Your task to perform on an android device: turn off notifications settings in the gmail app Image 0: 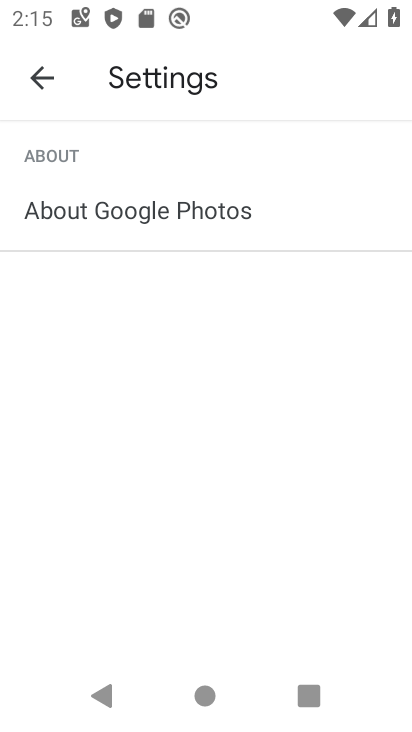
Step 0: press home button
Your task to perform on an android device: turn off notifications settings in the gmail app Image 1: 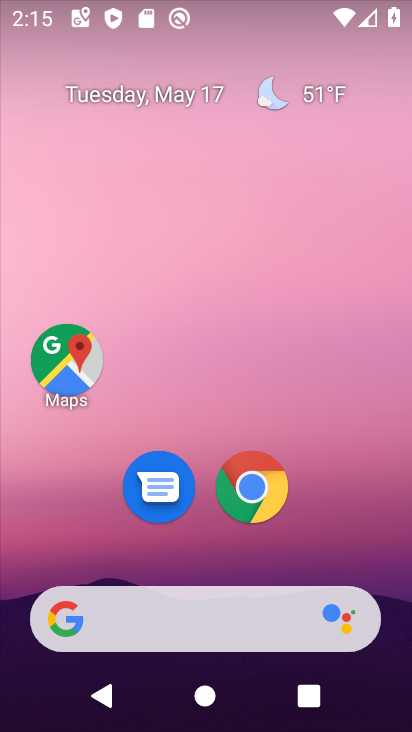
Step 1: drag from (125, 584) to (270, 199)
Your task to perform on an android device: turn off notifications settings in the gmail app Image 2: 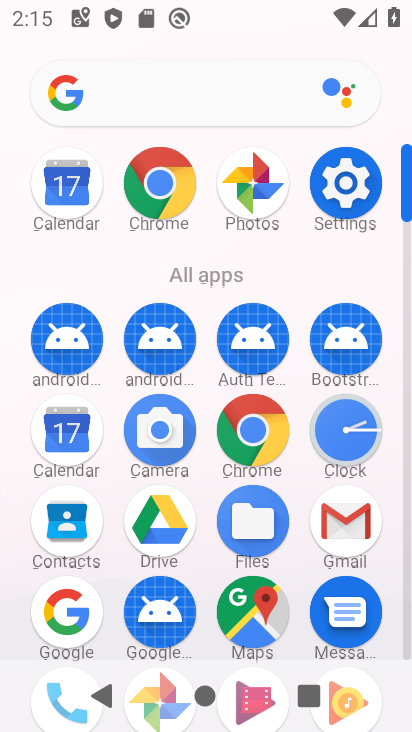
Step 2: drag from (166, 627) to (217, 416)
Your task to perform on an android device: turn off notifications settings in the gmail app Image 3: 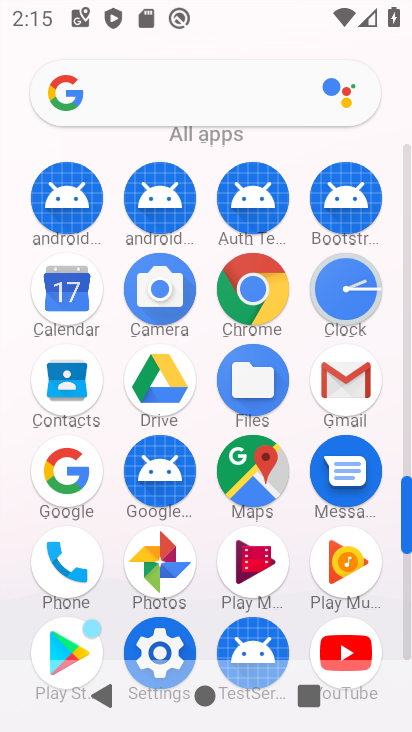
Step 3: click (321, 395)
Your task to perform on an android device: turn off notifications settings in the gmail app Image 4: 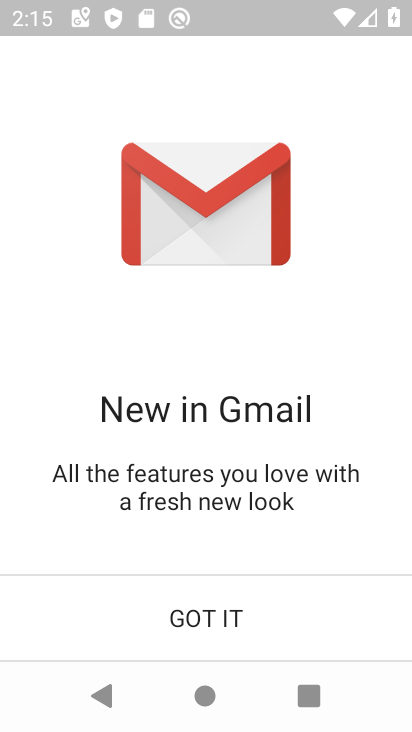
Step 4: click (233, 628)
Your task to perform on an android device: turn off notifications settings in the gmail app Image 5: 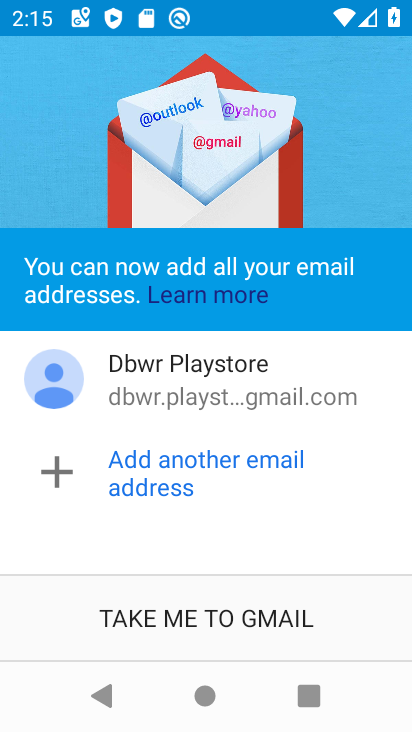
Step 5: click (216, 625)
Your task to perform on an android device: turn off notifications settings in the gmail app Image 6: 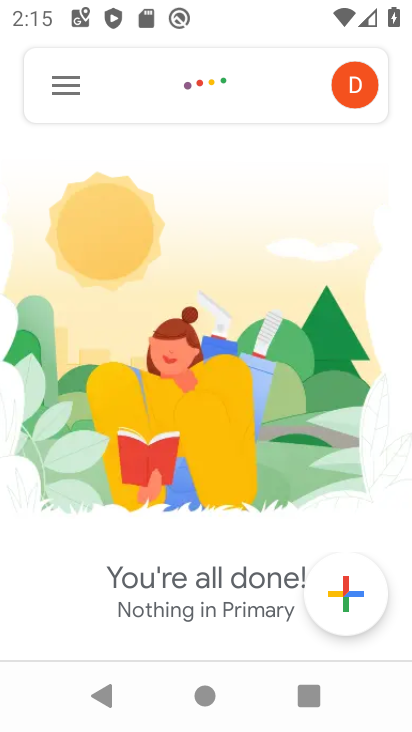
Step 6: click (76, 103)
Your task to perform on an android device: turn off notifications settings in the gmail app Image 7: 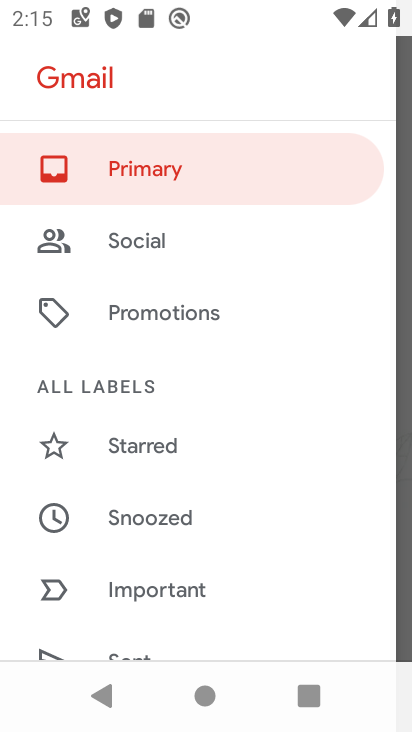
Step 7: drag from (155, 509) to (260, 120)
Your task to perform on an android device: turn off notifications settings in the gmail app Image 8: 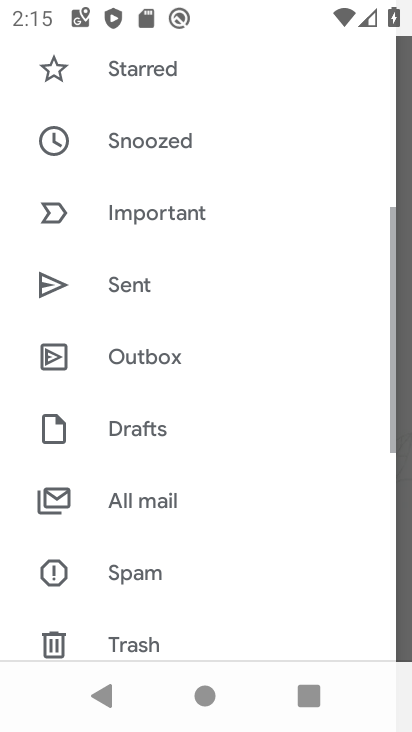
Step 8: drag from (178, 550) to (260, 295)
Your task to perform on an android device: turn off notifications settings in the gmail app Image 9: 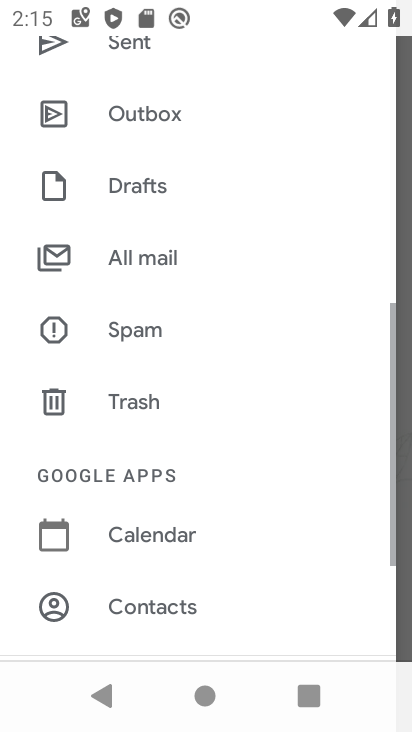
Step 9: drag from (184, 553) to (264, 317)
Your task to perform on an android device: turn off notifications settings in the gmail app Image 10: 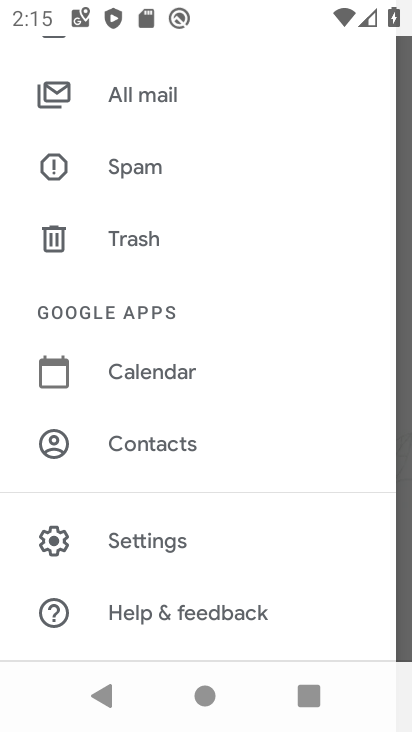
Step 10: click (195, 556)
Your task to perform on an android device: turn off notifications settings in the gmail app Image 11: 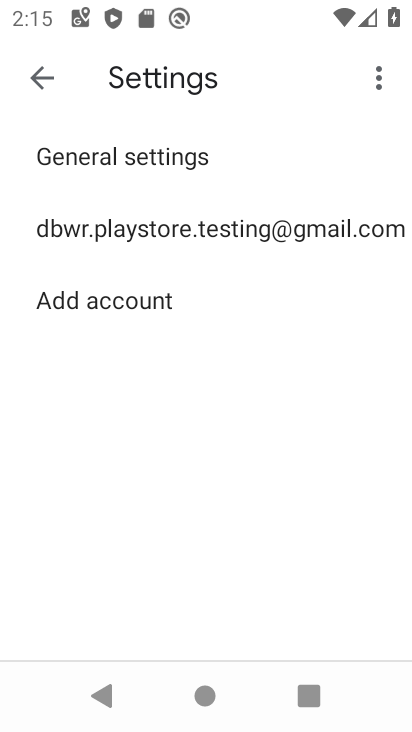
Step 11: click (280, 225)
Your task to perform on an android device: turn off notifications settings in the gmail app Image 12: 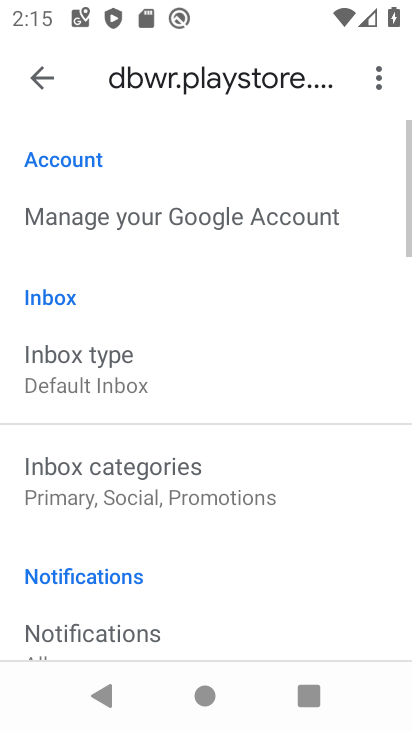
Step 12: drag from (214, 564) to (338, 248)
Your task to perform on an android device: turn off notifications settings in the gmail app Image 13: 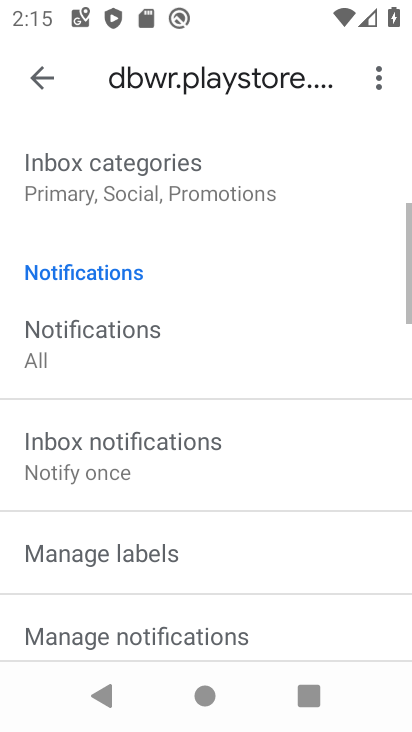
Step 13: drag from (194, 557) to (288, 352)
Your task to perform on an android device: turn off notifications settings in the gmail app Image 14: 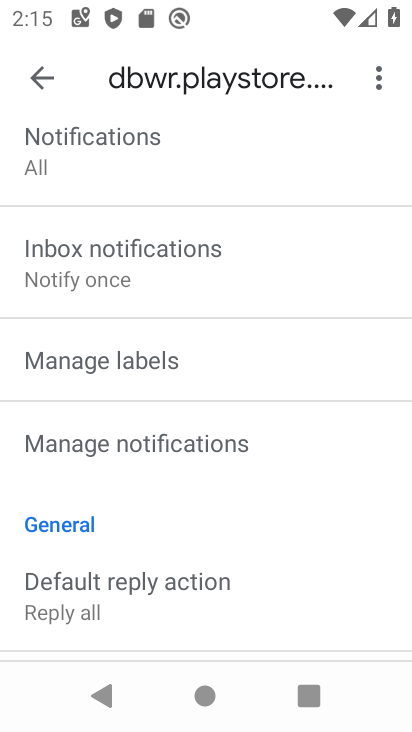
Step 14: click (209, 456)
Your task to perform on an android device: turn off notifications settings in the gmail app Image 15: 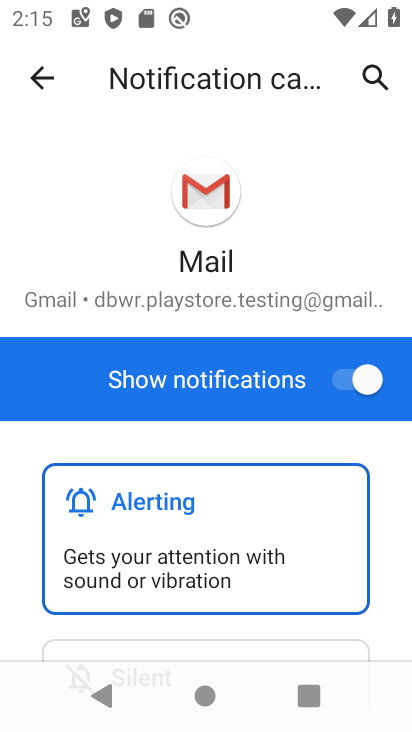
Step 15: click (334, 377)
Your task to perform on an android device: turn off notifications settings in the gmail app Image 16: 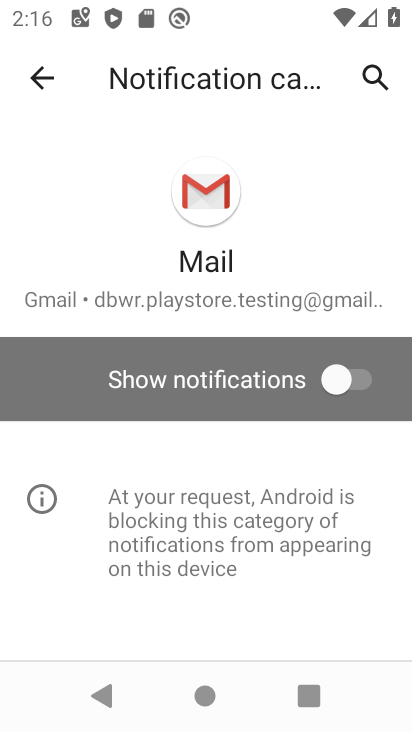
Step 16: task complete